Your task to perform on an android device: Open the web browser Image 0: 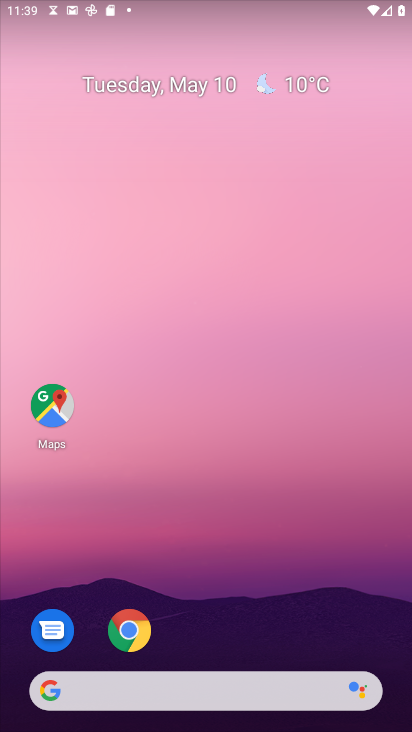
Step 0: click (132, 630)
Your task to perform on an android device: Open the web browser Image 1: 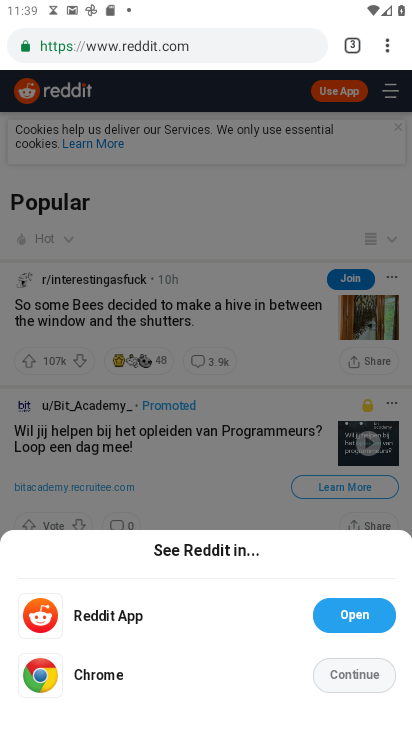
Step 1: click (398, 176)
Your task to perform on an android device: Open the web browser Image 2: 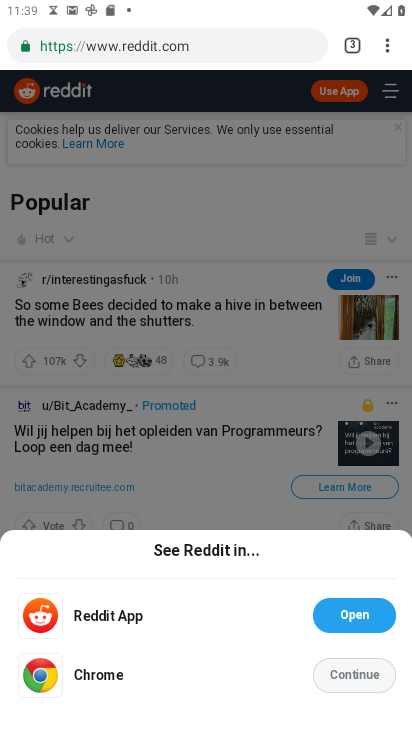
Step 2: task complete